Your task to perform on an android device: Open accessibility settings Image 0: 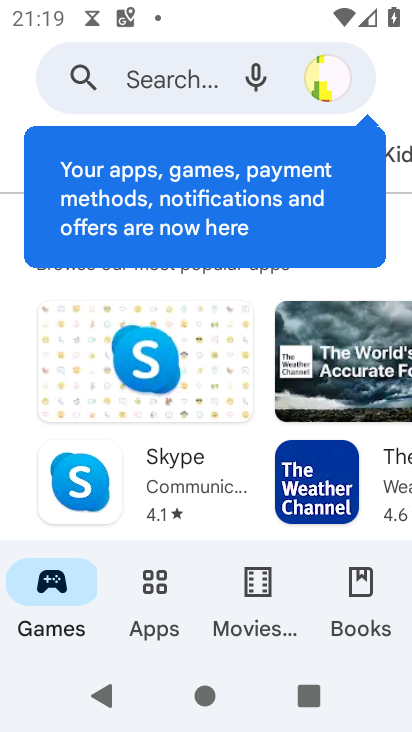
Step 0: press home button
Your task to perform on an android device: Open accessibility settings Image 1: 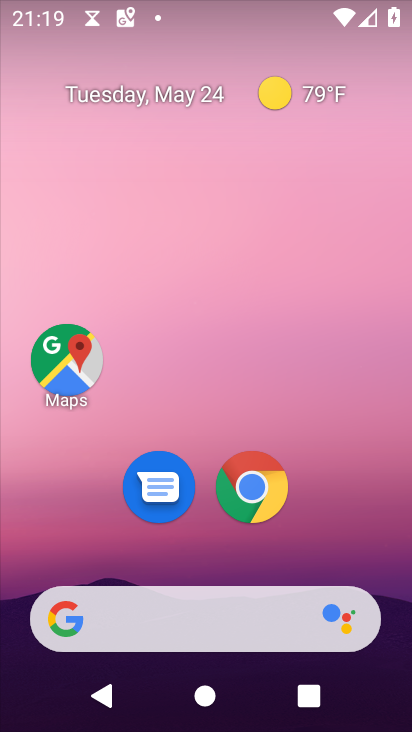
Step 1: drag from (370, 531) to (257, 15)
Your task to perform on an android device: Open accessibility settings Image 2: 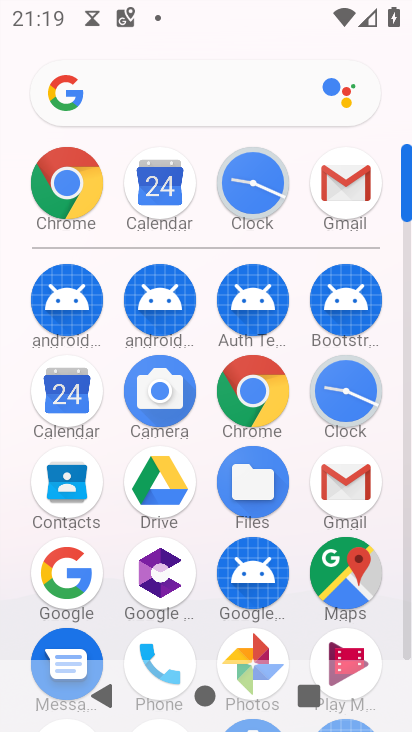
Step 2: click (407, 656)
Your task to perform on an android device: Open accessibility settings Image 3: 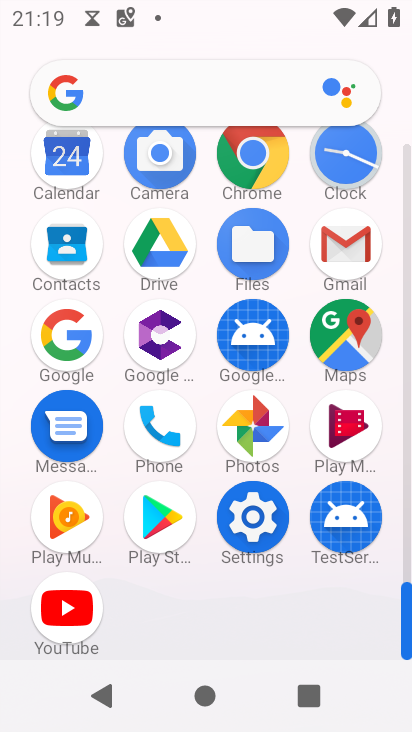
Step 3: click (245, 532)
Your task to perform on an android device: Open accessibility settings Image 4: 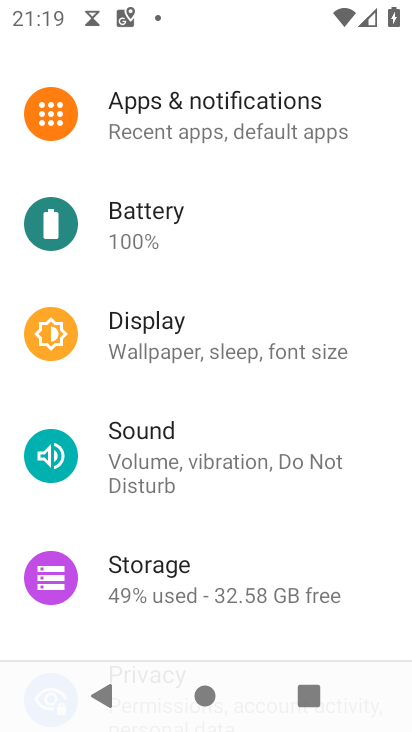
Step 4: drag from (243, 543) to (238, 76)
Your task to perform on an android device: Open accessibility settings Image 5: 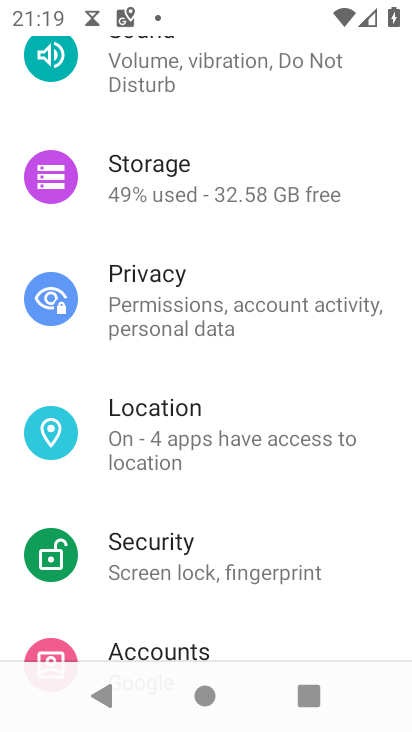
Step 5: drag from (248, 498) to (279, 204)
Your task to perform on an android device: Open accessibility settings Image 6: 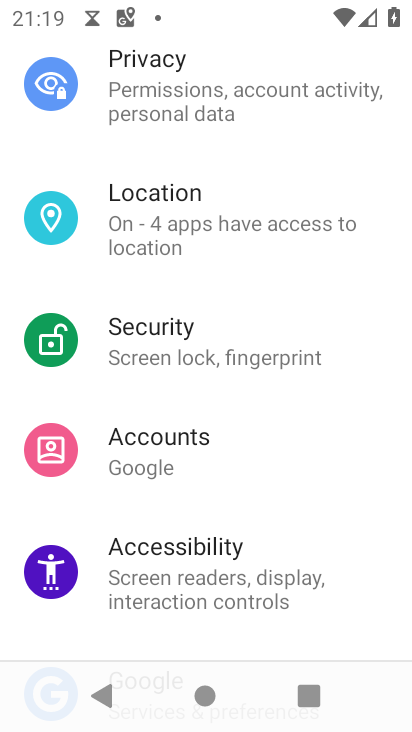
Step 6: drag from (285, 557) to (296, 210)
Your task to perform on an android device: Open accessibility settings Image 7: 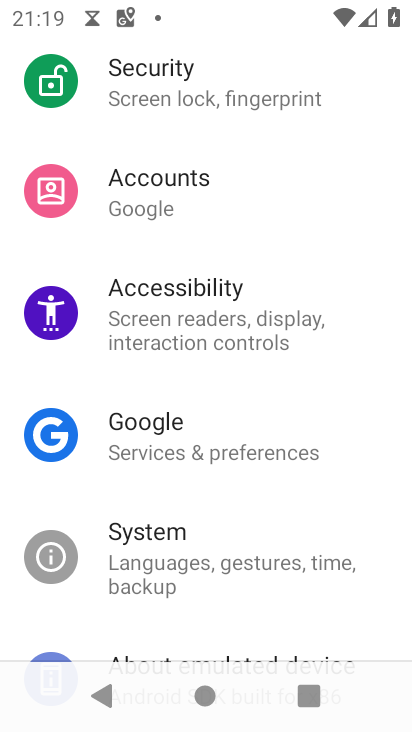
Step 7: click (204, 289)
Your task to perform on an android device: Open accessibility settings Image 8: 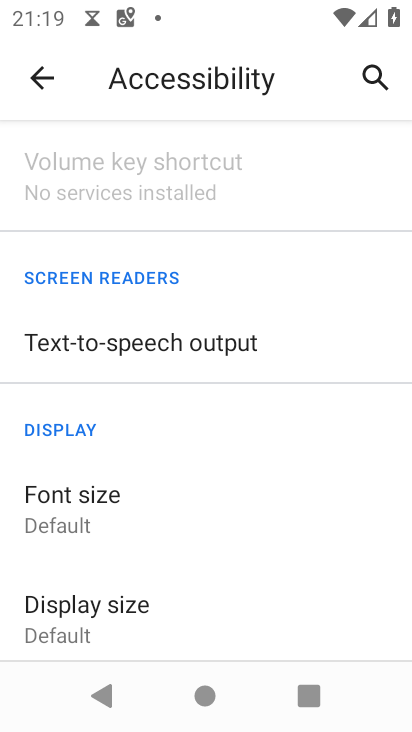
Step 8: task complete